Your task to perform on an android device: change text size in settings app Image 0: 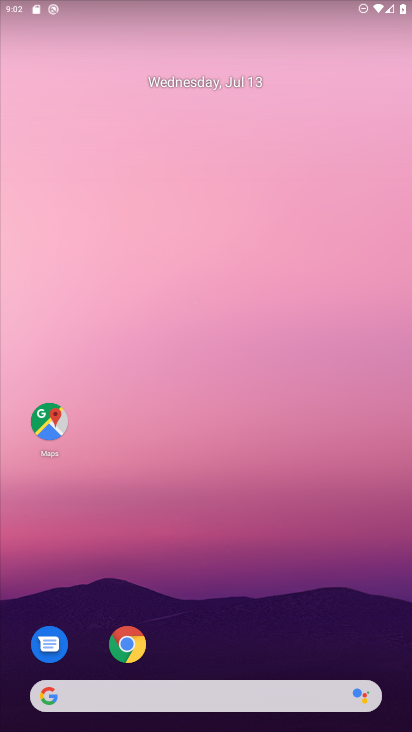
Step 0: press home button
Your task to perform on an android device: change text size in settings app Image 1: 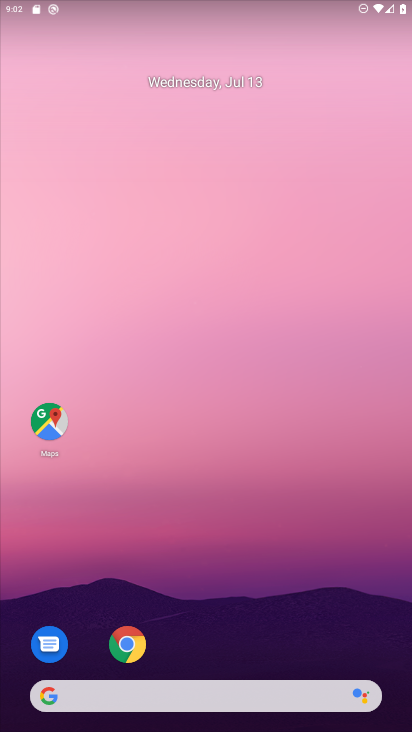
Step 1: drag from (249, 543) to (221, 89)
Your task to perform on an android device: change text size in settings app Image 2: 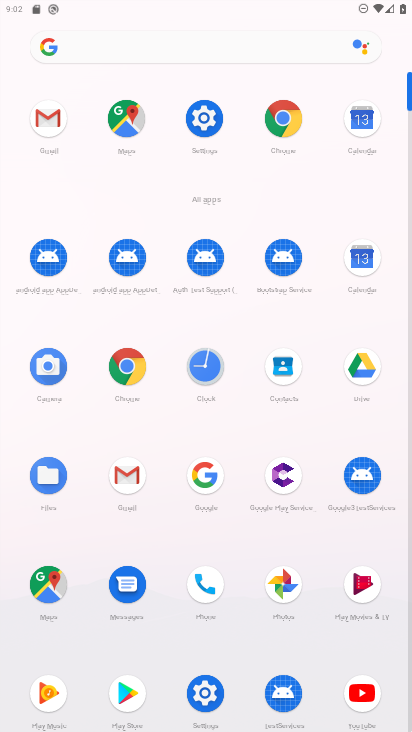
Step 2: click (208, 108)
Your task to perform on an android device: change text size in settings app Image 3: 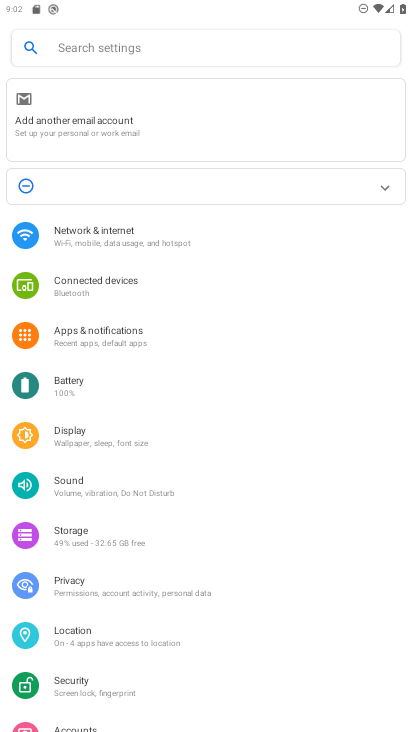
Step 3: click (95, 432)
Your task to perform on an android device: change text size in settings app Image 4: 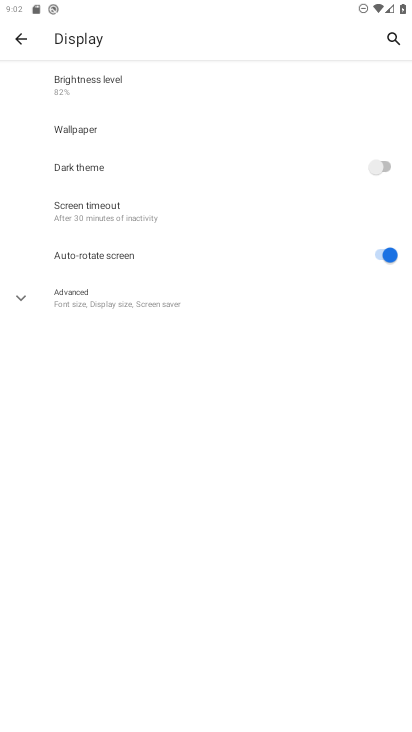
Step 4: click (88, 299)
Your task to perform on an android device: change text size in settings app Image 5: 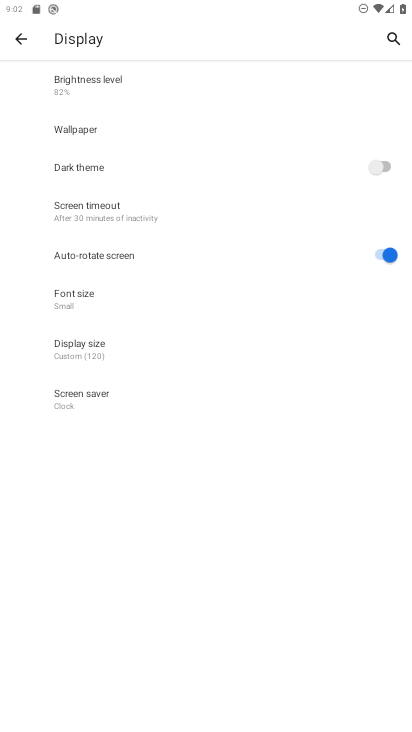
Step 5: click (89, 293)
Your task to perform on an android device: change text size in settings app Image 6: 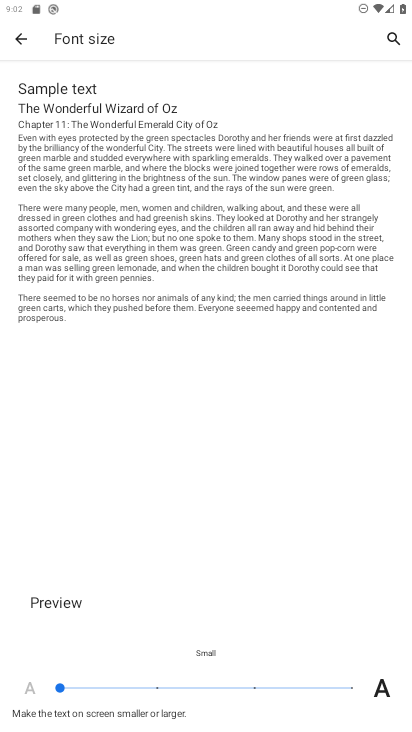
Step 6: click (251, 689)
Your task to perform on an android device: change text size in settings app Image 7: 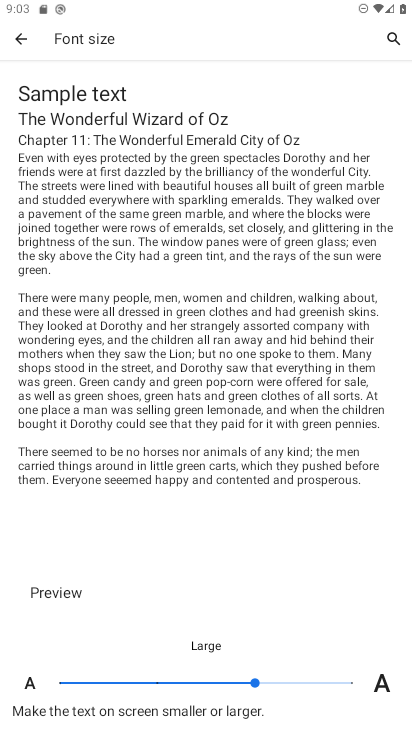
Step 7: task complete